Your task to perform on an android device: turn off smart reply in the gmail app Image 0: 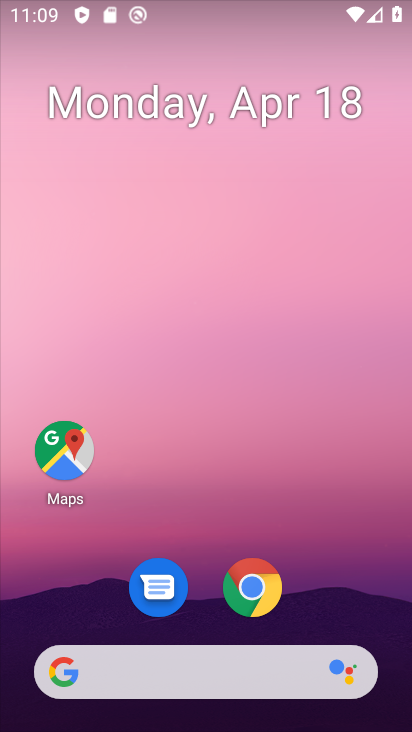
Step 0: drag from (350, 605) to (376, 118)
Your task to perform on an android device: turn off smart reply in the gmail app Image 1: 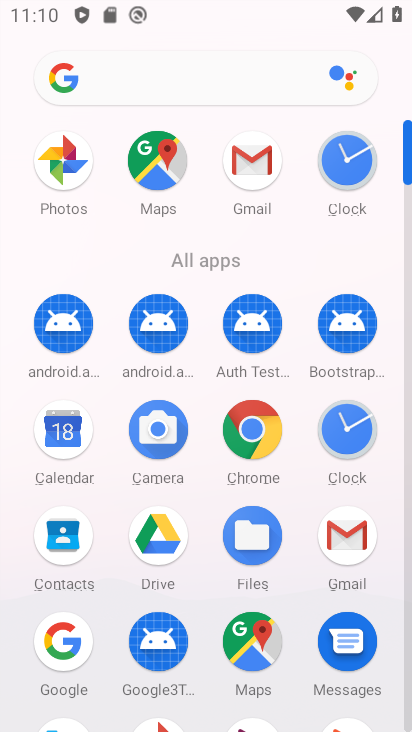
Step 1: click (344, 531)
Your task to perform on an android device: turn off smart reply in the gmail app Image 2: 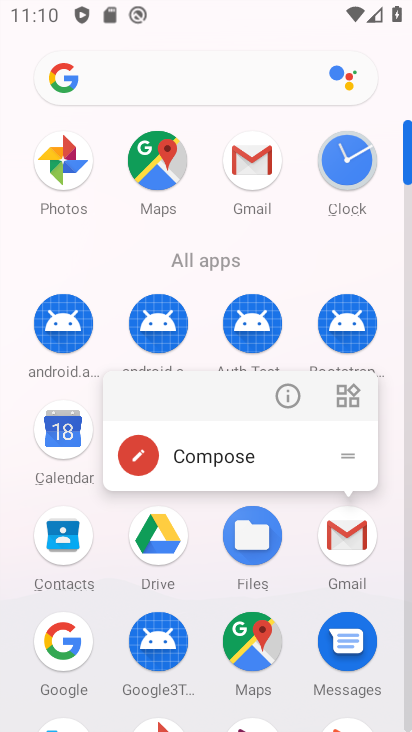
Step 2: click (342, 528)
Your task to perform on an android device: turn off smart reply in the gmail app Image 3: 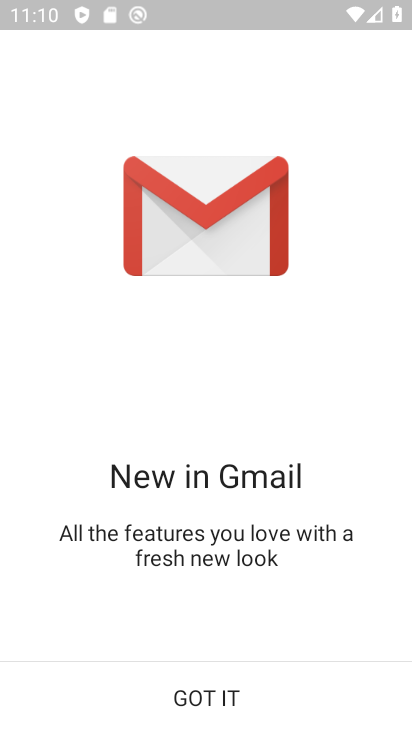
Step 3: click (229, 703)
Your task to perform on an android device: turn off smart reply in the gmail app Image 4: 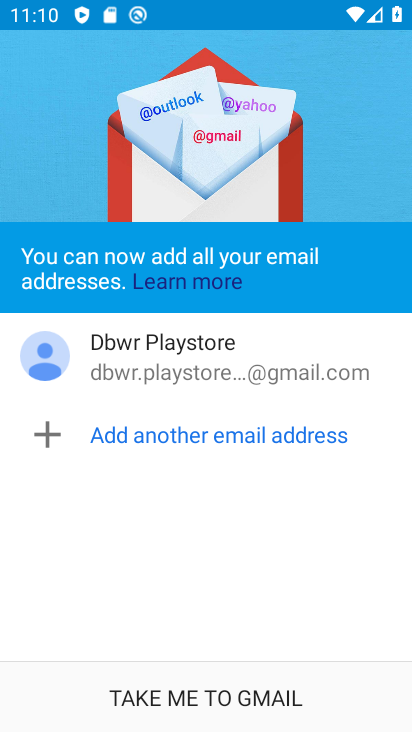
Step 4: click (243, 700)
Your task to perform on an android device: turn off smart reply in the gmail app Image 5: 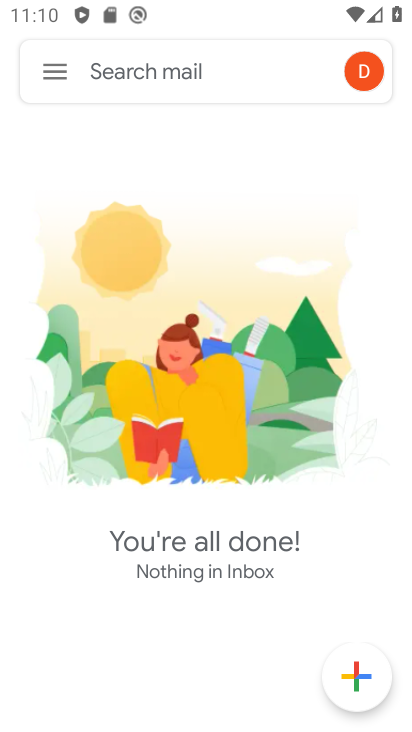
Step 5: click (55, 71)
Your task to perform on an android device: turn off smart reply in the gmail app Image 6: 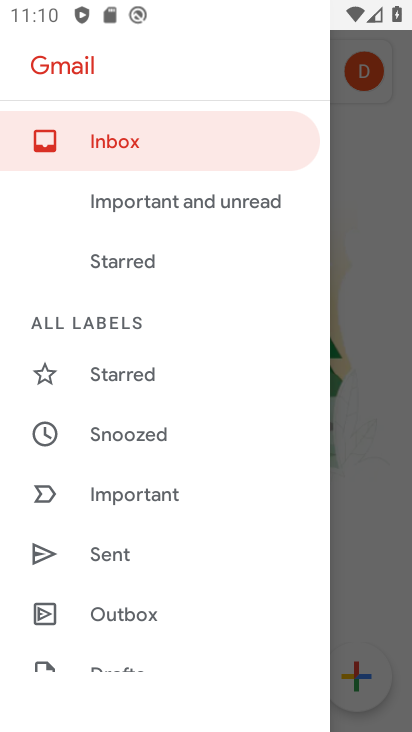
Step 6: drag from (217, 636) to (293, 205)
Your task to perform on an android device: turn off smart reply in the gmail app Image 7: 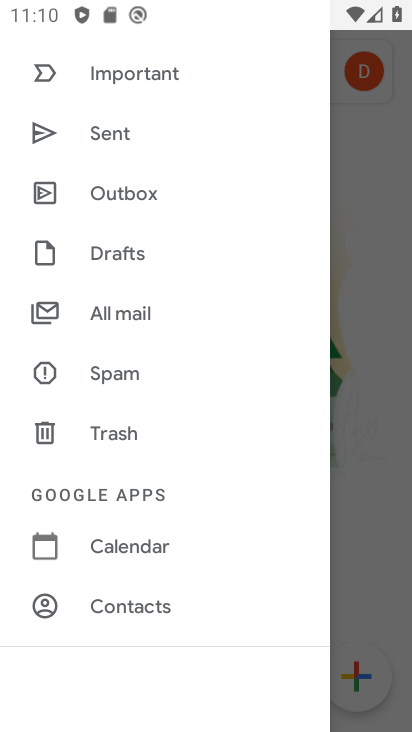
Step 7: drag from (215, 583) to (296, 219)
Your task to perform on an android device: turn off smart reply in the gmail app Image 8: 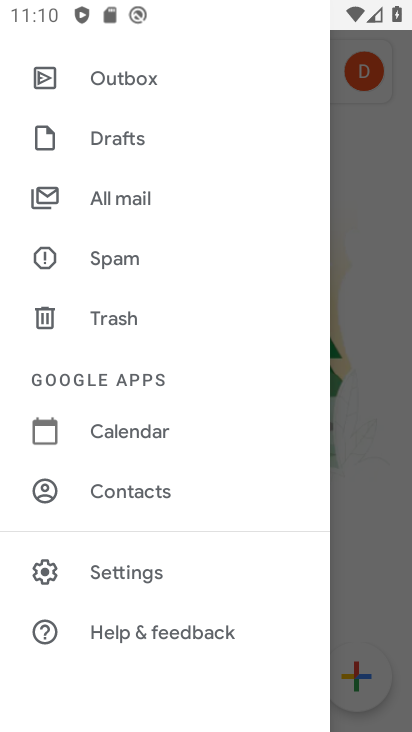
Step 8: click (131, 573)
Your task to perform on an android device: turn off smart reply in the gmail app Image 9: 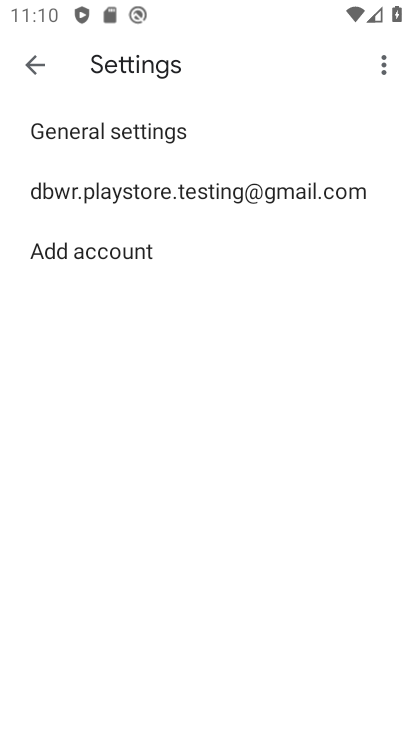
Step 9: click (300, 190)
Your task to perform on an android device: turn off smart reply in the gmail app Image 10: 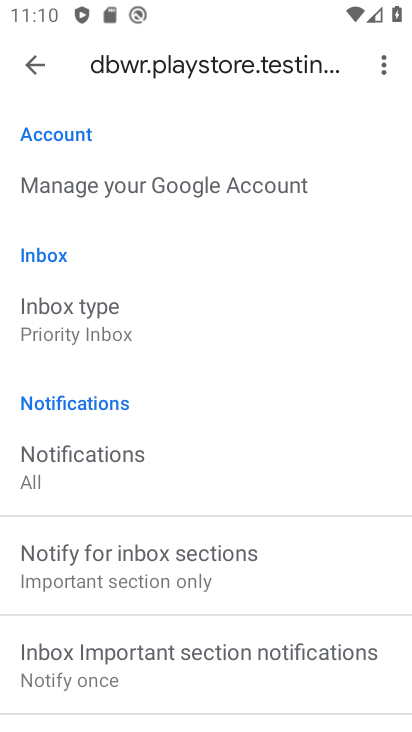
Step 10: drag from (325, 583) to (343, 142)
Your task to perform on an android device: turn off smart reply in the gmail app Image 11: 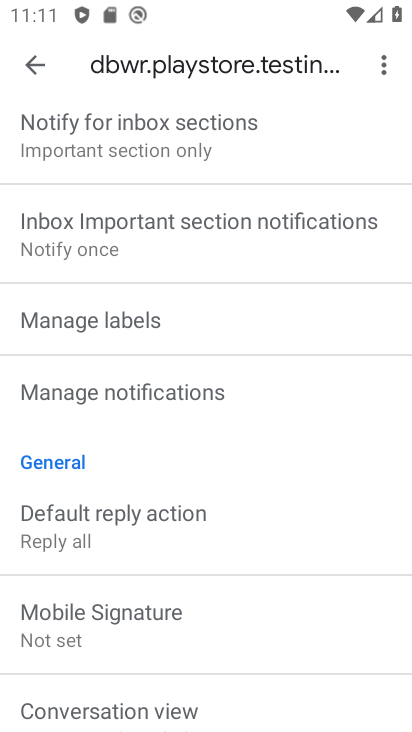
Step 11: drag from (266, 622) to (319, 208)
Your task to perform on an android device: turn off smart reply in the gmail app Image 12: 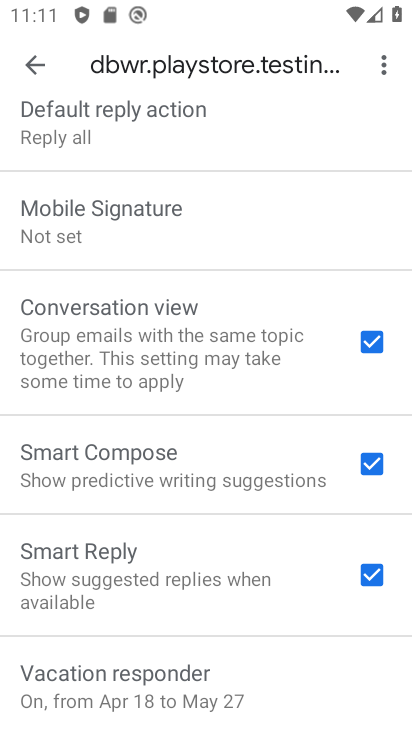
Step 12: click (379, 572)
Your task to perform on an android device: turn off smart reply in the gmail app Image 13: 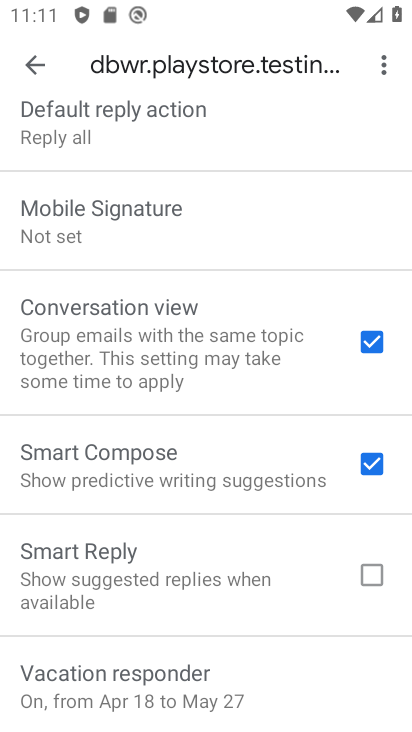
Step 13: task complete